Your task to perform on an android device: turn on showing notifications on the lock screen Image 0: 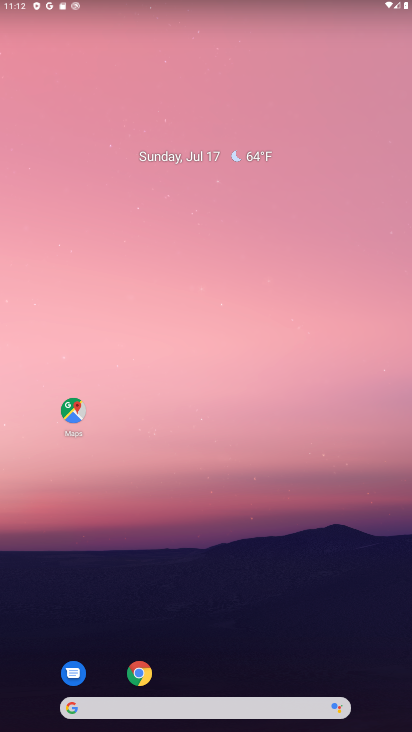
Step 0: drag from (215, 674) to (314, 102)
Your task to perform on an android device: turn on showing notifications on the lock screen Image 1: 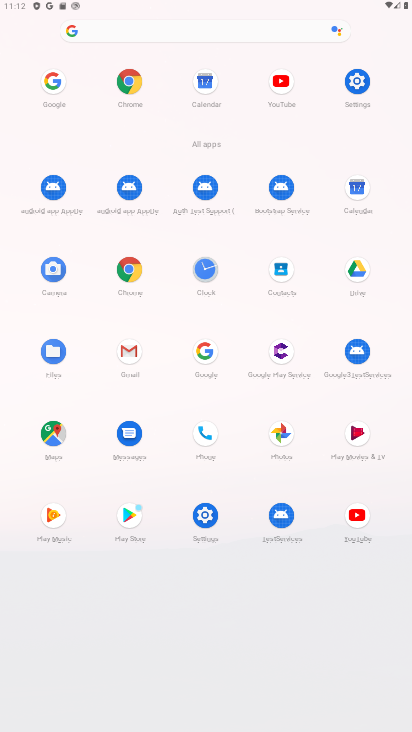
Step 1: click (356, 83)
Your task to perform on an android device: turn on showing notifications on the lock screen Image 2: 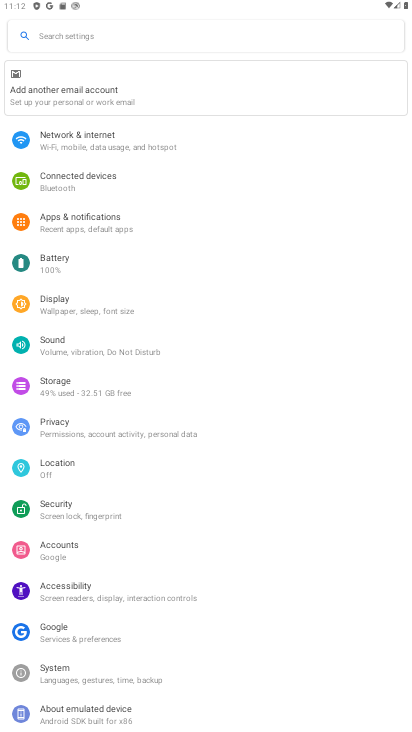
Step 2: click (109, 223)
Your task to perform on an android device: turn on showing notifications on the lock screen Image 3: 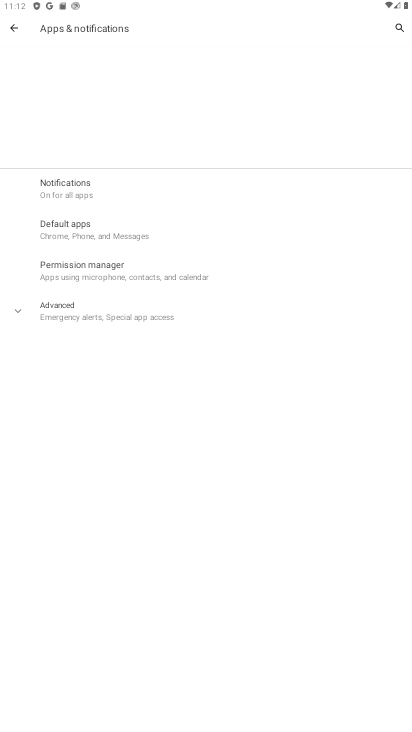
Step 3: click (78, 189)
Your task to perform on an android device: turn on showing notifications on the lock screen Image 4: 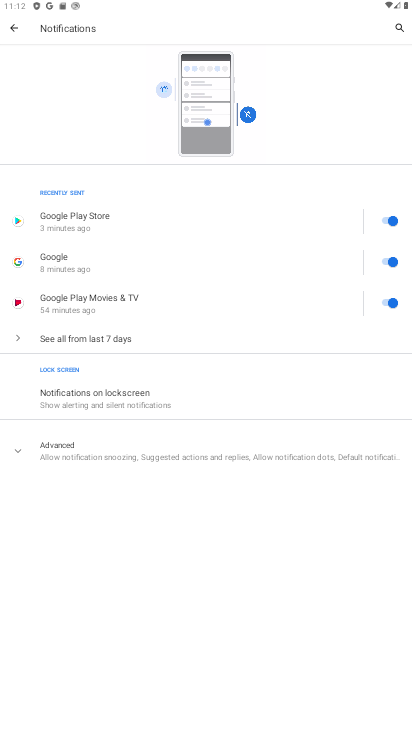
Step 4: click (85, 402)
Your task to perform on an android device: turn on showing notifications on the lock screen Image 5: 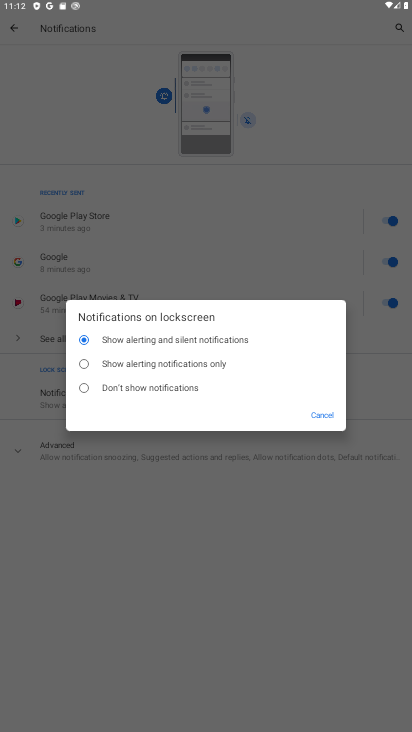
Step 5: task complete